Your task to perform on an android device: Open the calendar app, open the side menu, and click the "Day" option Image 0: 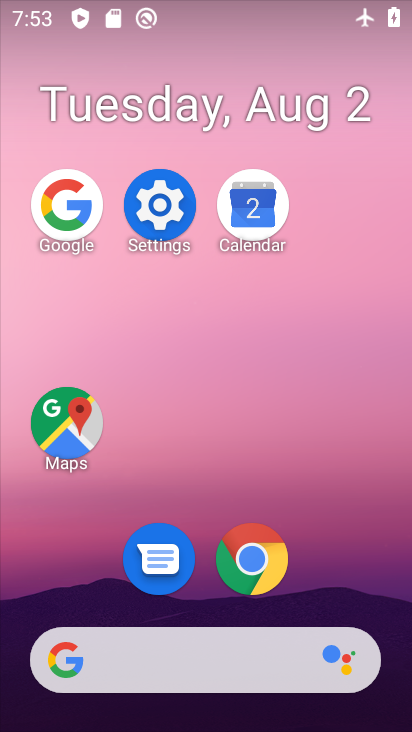
Step 0: click (261, 206)
Your task to perform on an android device: Open the calendar app, open the side menu, and click the "Day" option Image 1: 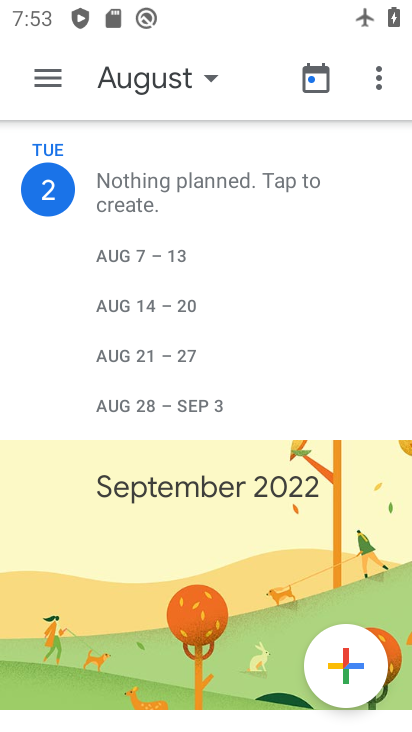
Step 1: click (65, 82)
Your task to perform on an android device: Open the calendar app, open the side menu, and click the "Day" option Image 2: 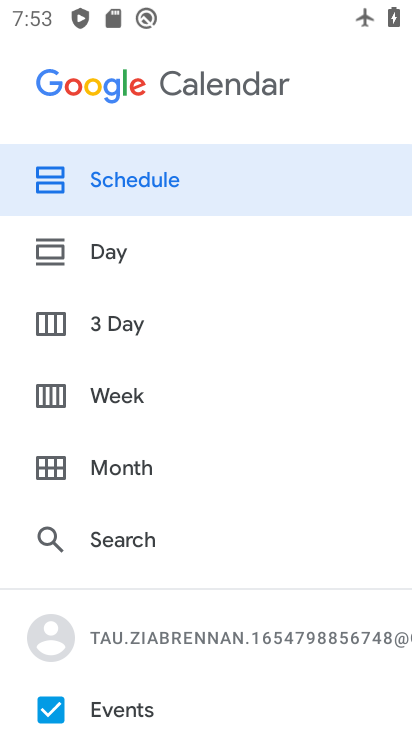
Step 2: click (148, 264)
Your task to perform on an android device: Open the calendar app, open the side menu, and click the "Day" option Image 3: 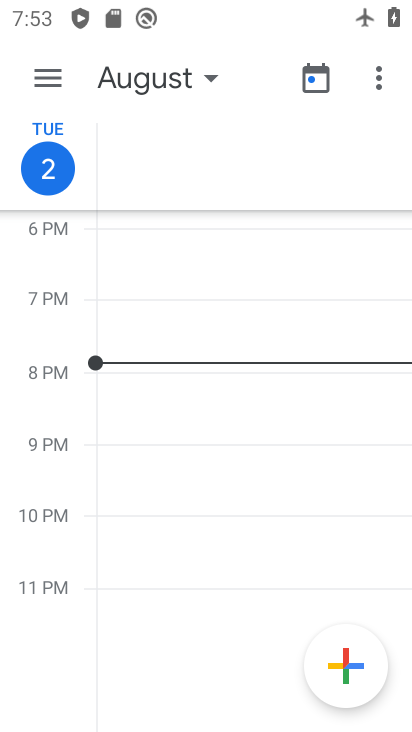
Step 3: task complete